Your task to perform on an android device: Go to sound settings Image 0: 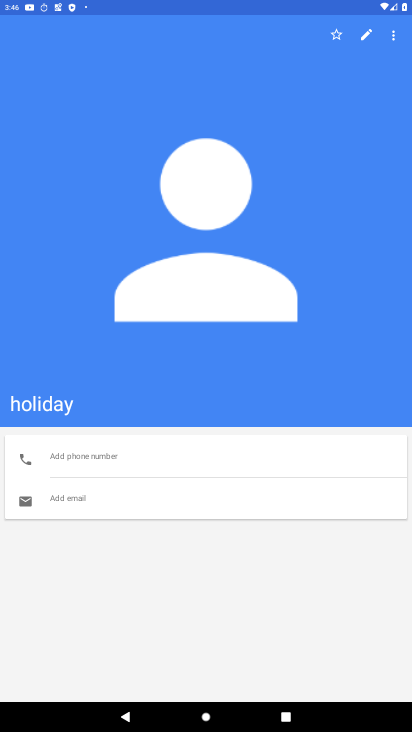
Step 0: press home button
Your task to perform on an android device: Go to sound settings Image 1: 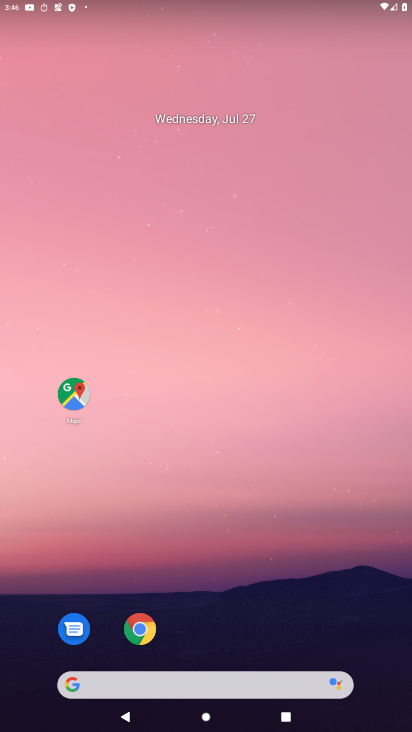
Step 1: drag from (317, 561) to (324, 0)
Your task to perform on an android device: Go to sound settings Image 2: 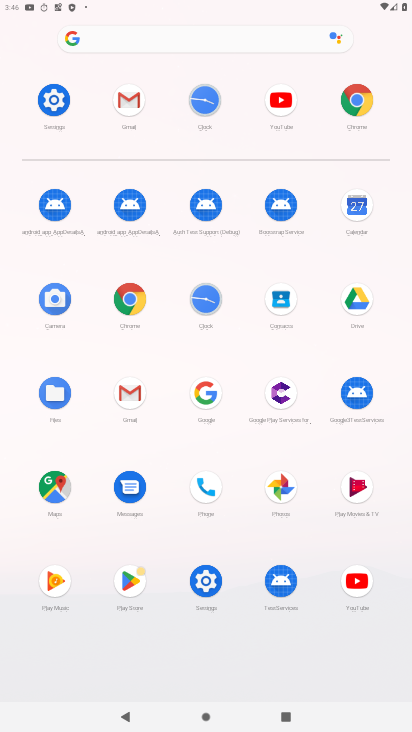
Step 2: click (54, 95)
Your task to perform on an android device: Go to sound settings Image 3: 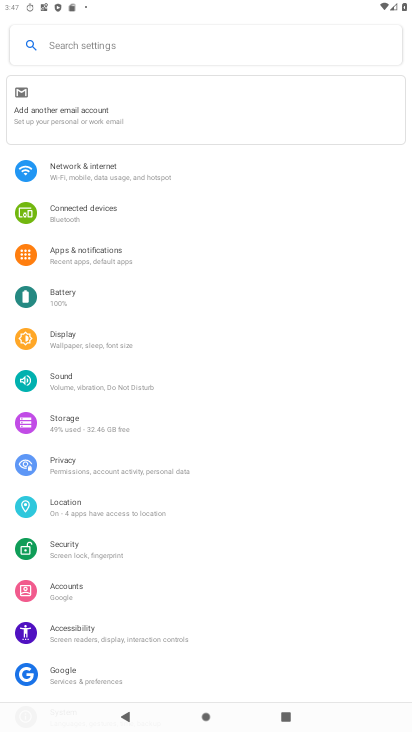
Step 3: click (86, 375)
Your task to perform on an android device: Go to sound settings Image 4: 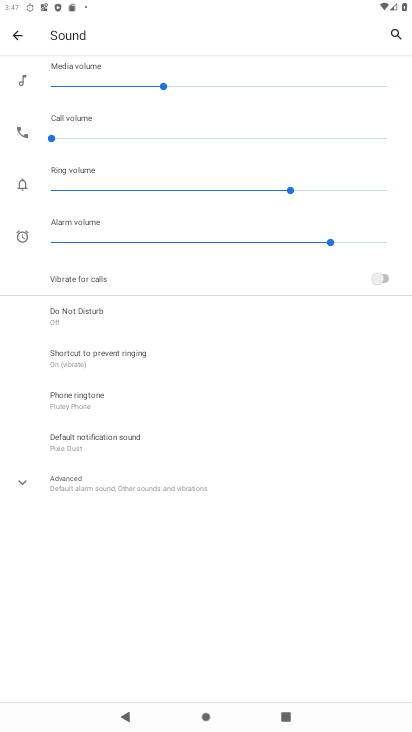
Step 4: task complete